Your task to perform on an android device: Go to Google Image 0: 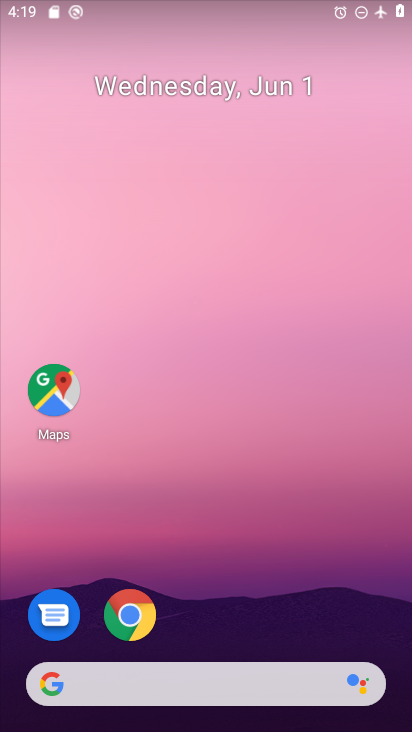
Step 0: press home button
Your task to perform on an android device: Go to Google Image 1: 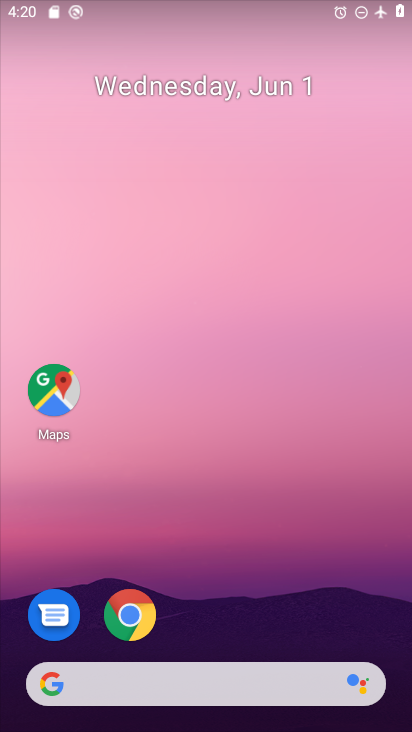
Step 1: drag from (227, 625) to (220, 56)
Your task to perform on an android device: Go to Google Image 2: 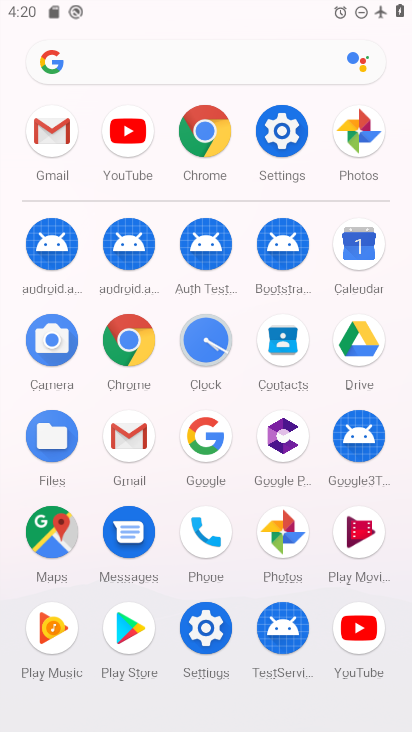
Step 2: click (202, 433)
Your task to perform on an android device: Go to Google Image 3: 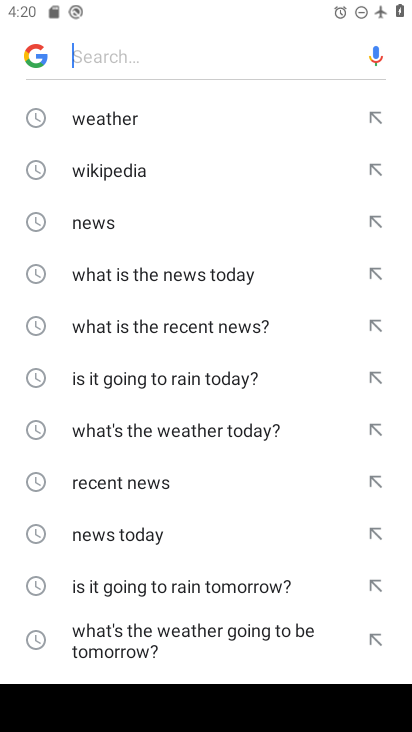
Step 3: press back button
Your task to perform on an android device: Go to Google Image 4: 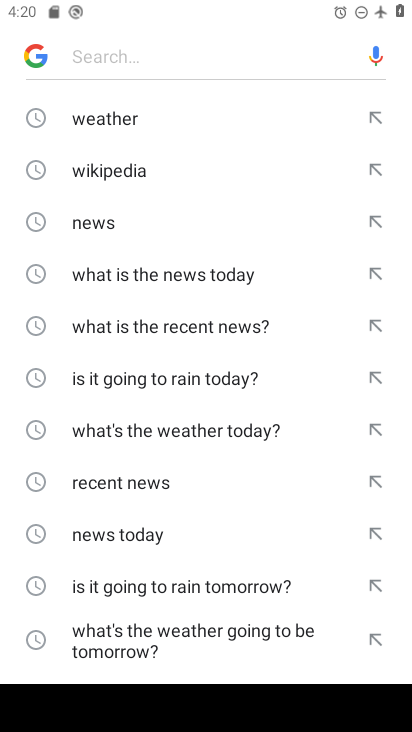
Step 4: press back button
Your task to perform on an android device: Go to Google Image 5: 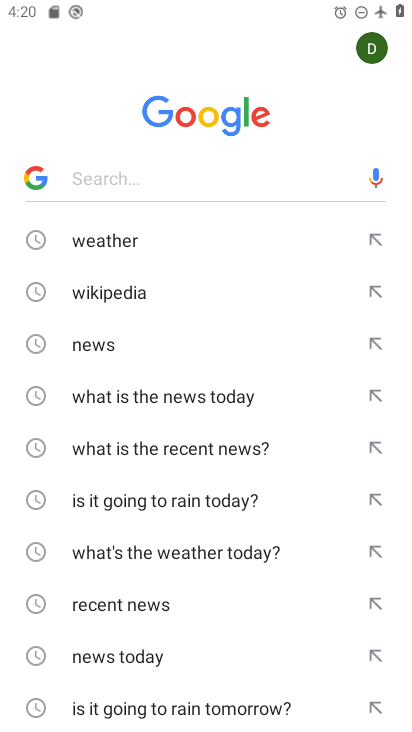
Step 5: press back button
Your task to perform on an android device: Go to Google Image 6: 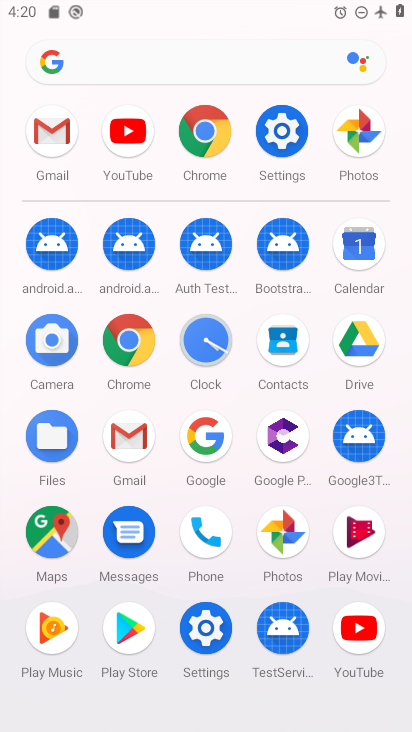
Step 6: click (206, 432)
Your task to perform on an android device: Go to Google Image 7: 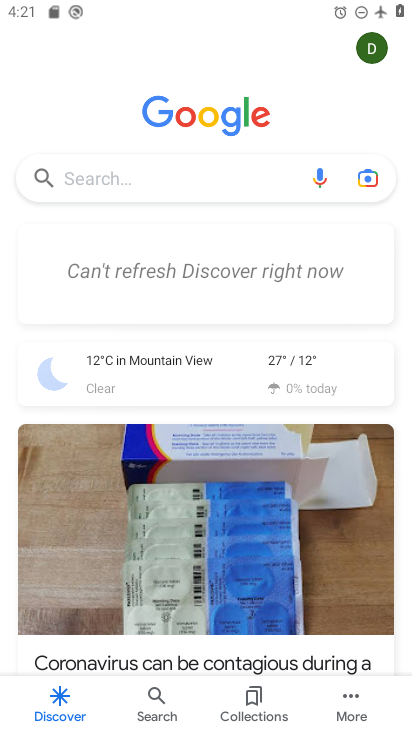
Step 7: task complete